Your task to perform on an android device: choose inbox layout in the gmail app Image 0: 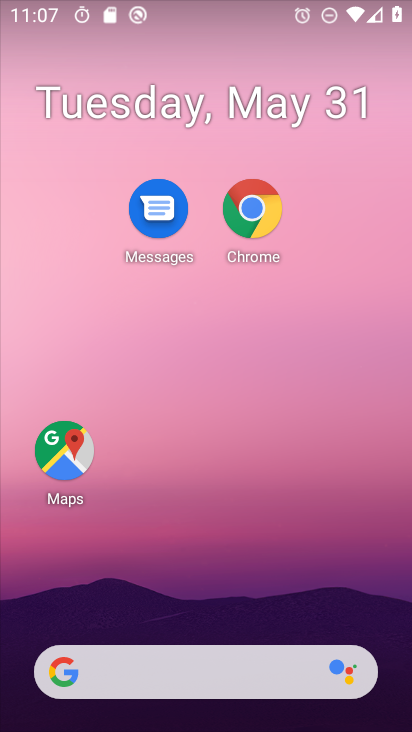
Step 0: press home button
Your task to perform on an android device: choose inbox layout in the gmail app Image 1: 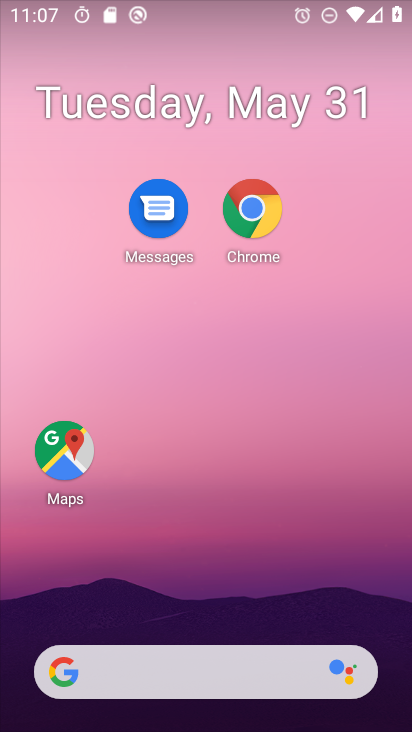
Step 1: drag from (223, 628) to (250, 47)
Your task to perform on an android device: choose inbox layout in the gmail app Image 2: 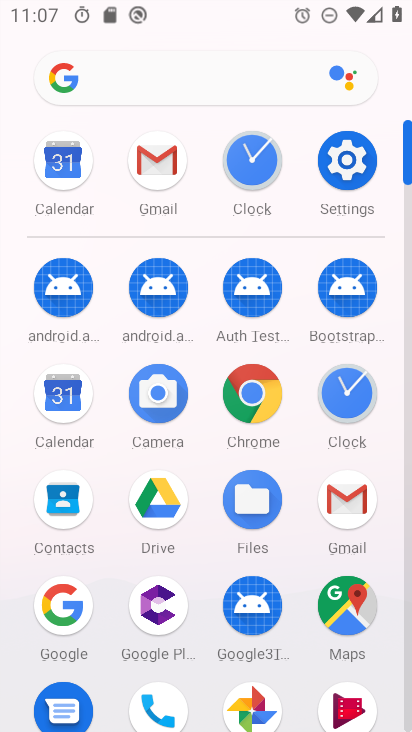
Step 2: click (346, 488)
Your task to perform on an android device: choose inbox layout in the gmail app Image 3: 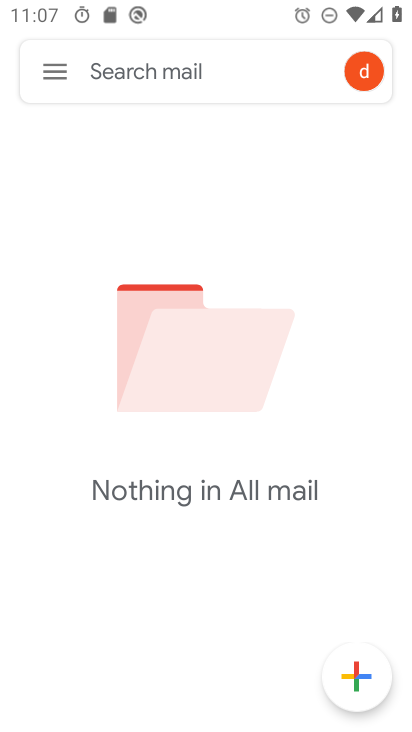
Step 3: click (46, 61)
Your task to perform on an android device: choose inbox layout in the gmail app Image 4: 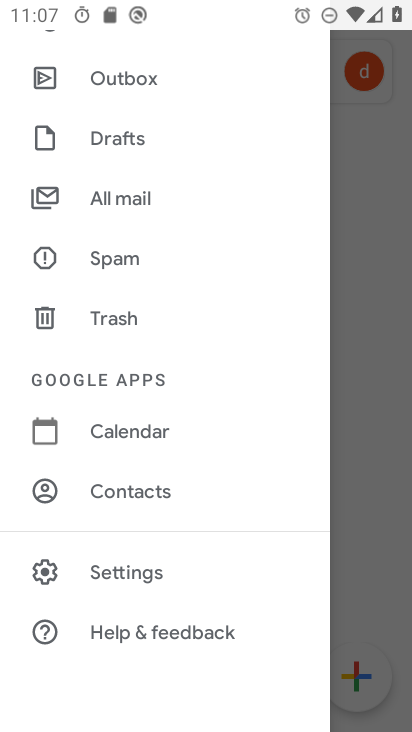
Step 4: click (174, 569)
Your task to perform on an android device: choose inbox layout in the gmail app Image 5: 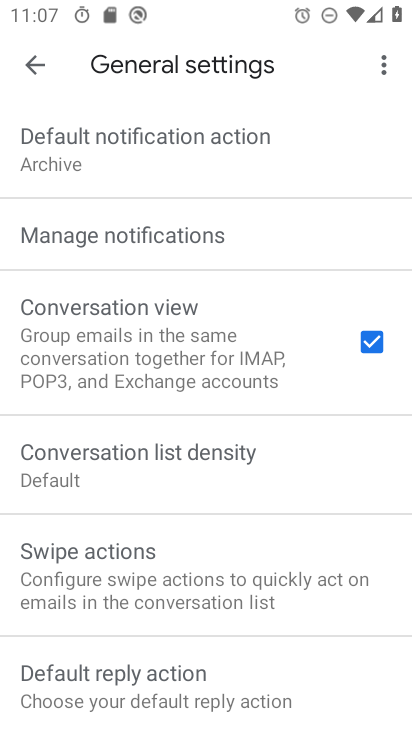
Step 5: click (40, 66)
Your task to perform on an android device: choose inbox layout in the gmail app Image 6: 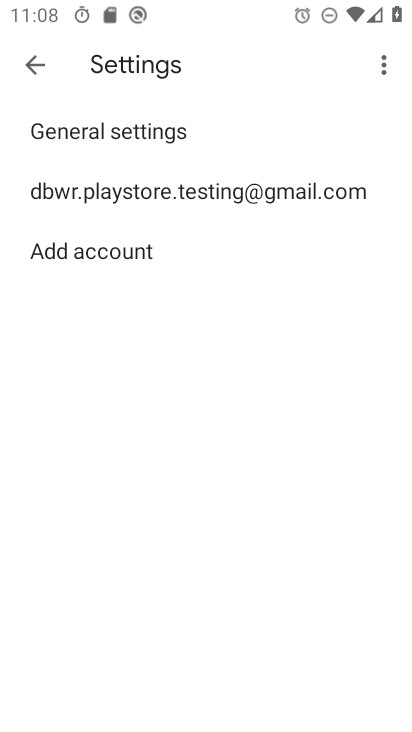
Step 6: click (239, 201)
Your task to perform on an android device: choose inbox layout in the gmail app Image 7: 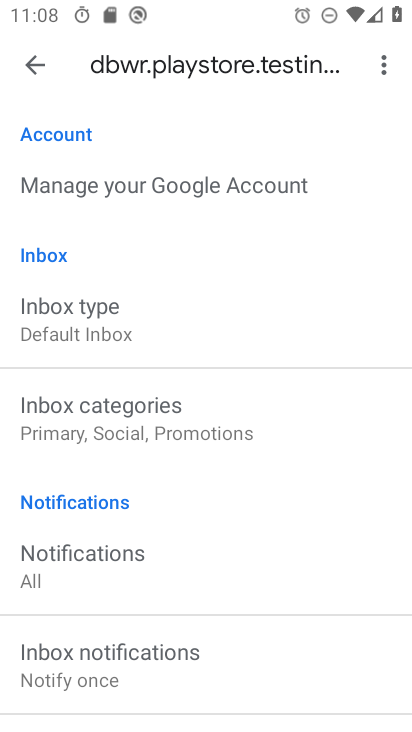
Step 7: click (158, 320)
Your task to perform on an android device: choose inbox layout in the gmail app Image 8: 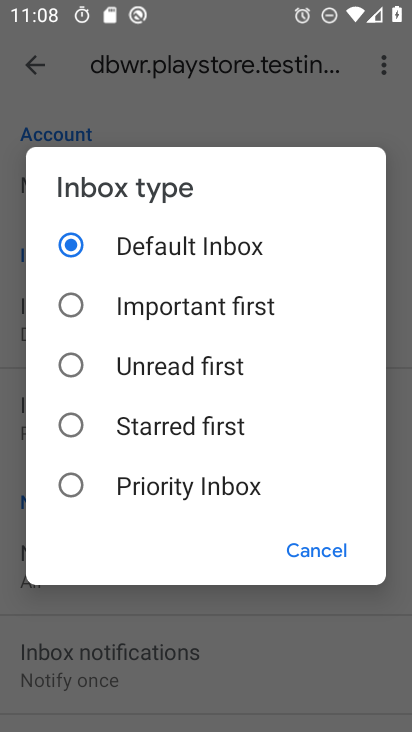
Step 8: click (77, 479)
Your task to perform on an android device: choose inbox layout in the gmail app Image 9: 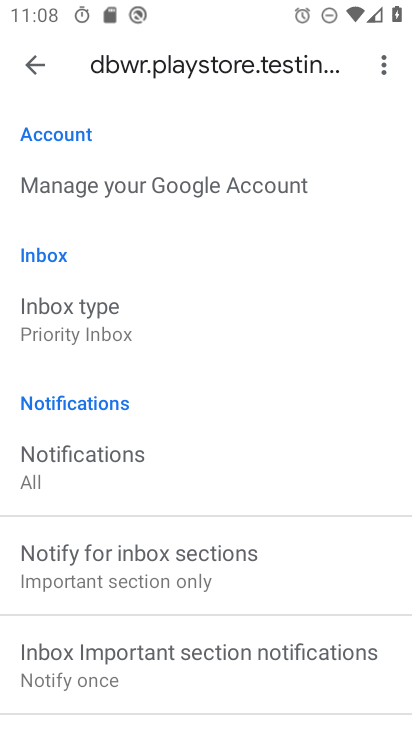
Step 9: task complete